Your task to perform on an android device: show emergency info Image 0: 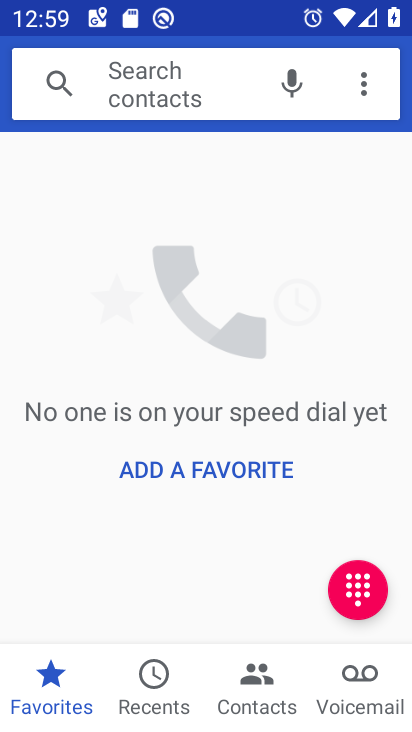
Step 0: press home button
Your task to perform on an android device: show emergency info Image 1: 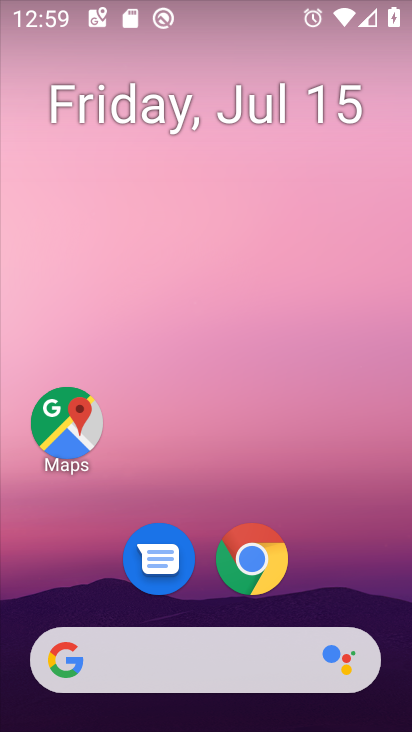
Step 1: drag from (391, 550) to (378, 146)
Your task to perform on an android device: show emergency info Image 2: 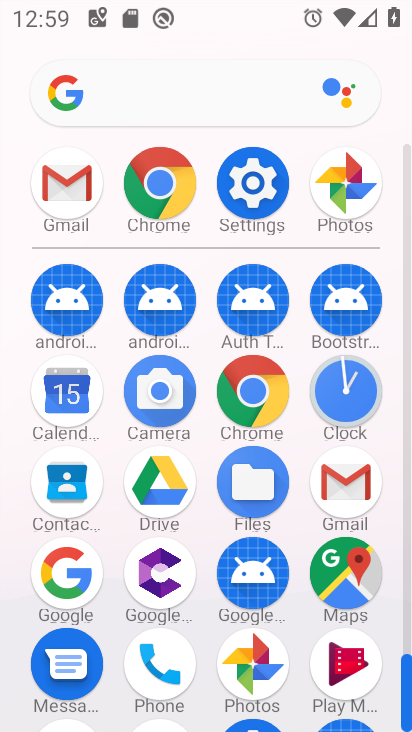
Step 2: click (263, 189)
Your task to perform on an android device: show emergency info Image 3: 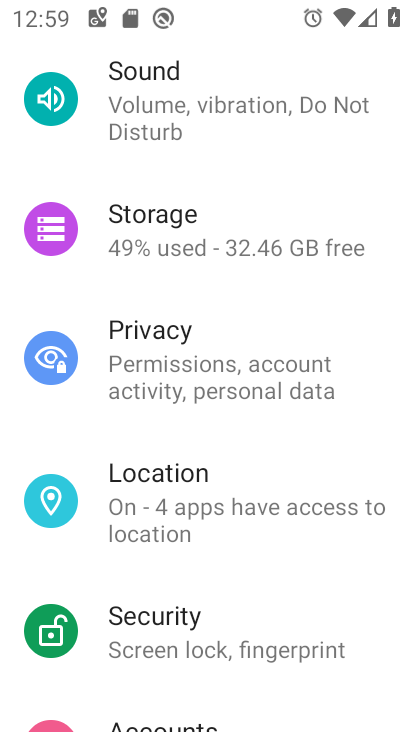
Step 3: drag from (350, 265) to (358, 354)
Your task to perform on an android device: show emergency info Image 4: 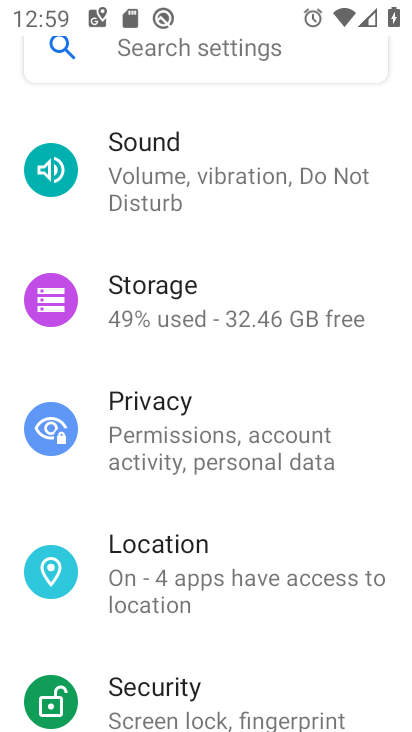
Step 4: drag from (363, 243) to (371, 346)
Your task to perform on an android device: show emergency info Image 5: 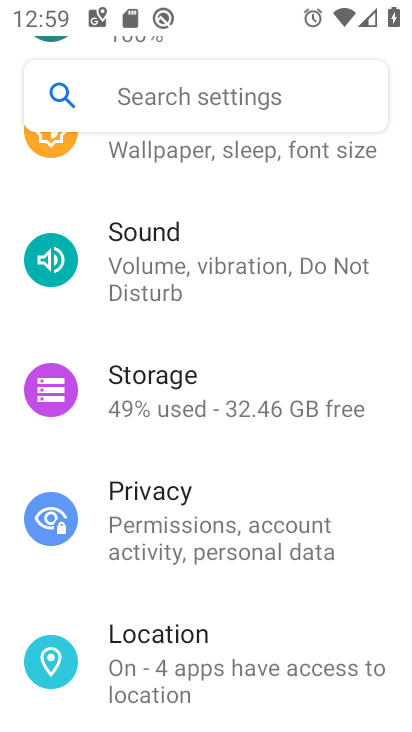
Step 5: drag from (374, 203) to (374, 306)
Your task to perform on an android device: show emergency info Image 6: 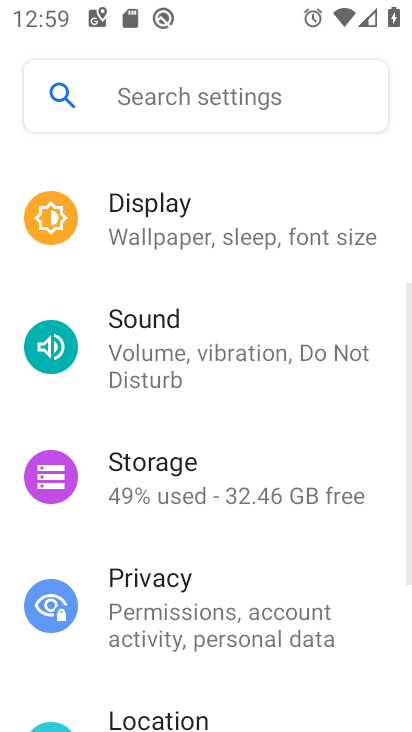
Step 6: drag from (372, 264) to (370, 351)
Your task to perform on an android device: show emergency info Image 7: 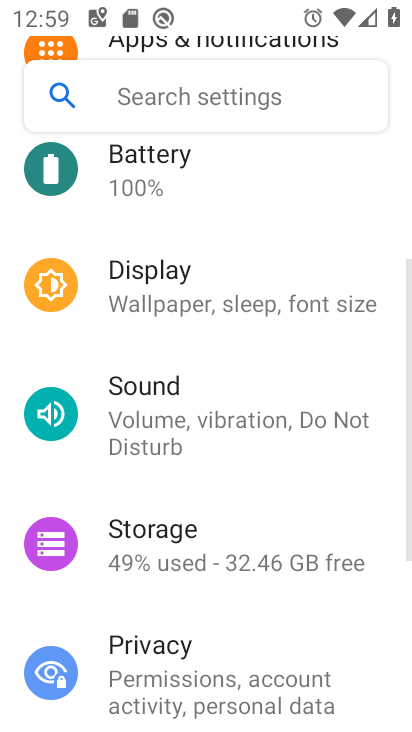
Step 7: drag from (355, 263) to (359, 356)
Your task to perform on an android device: show emergency info Image 8: 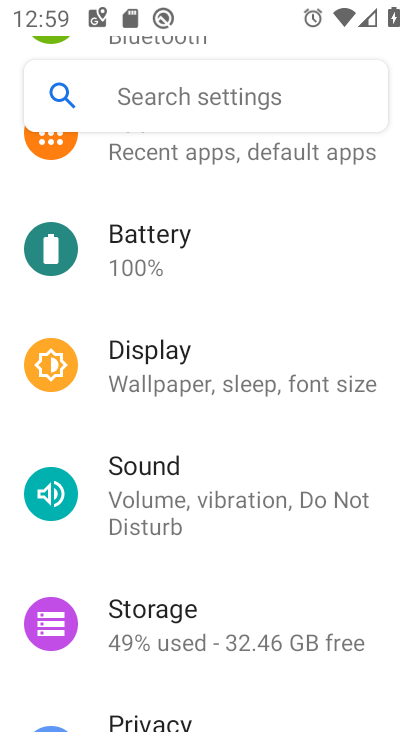
Step 8: drag from (359, 266) to (360, 375)
Your task to perform on an android device: show emergency info Image 9: 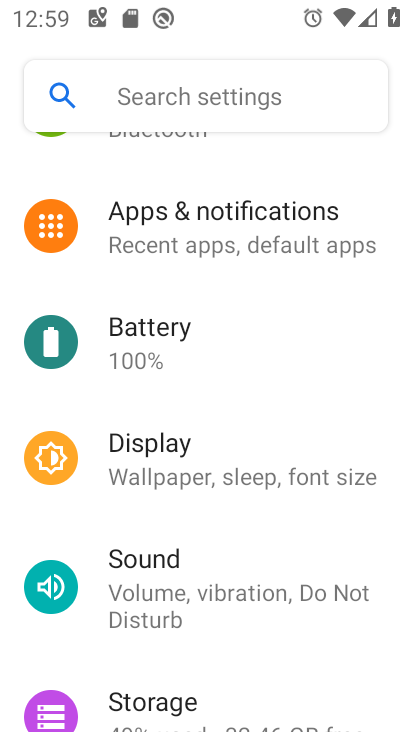
Step 9: drag from (356, 324) to (354, 419)
Your task to perform on an android device: show emergency info Image 10: 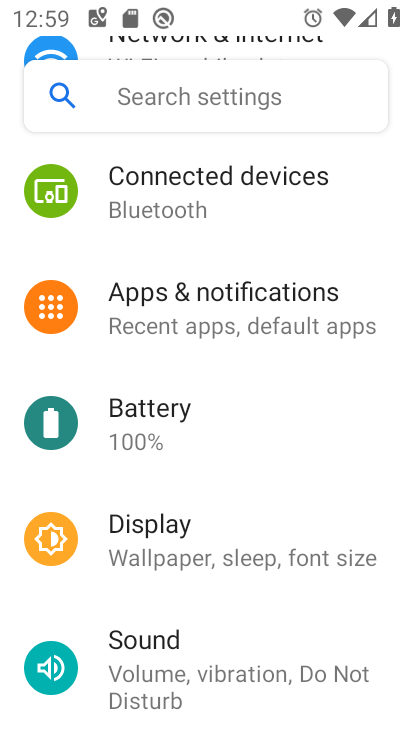
Step 10: drag from (359, 292) to (364, 399)
Your task to perform on an android device: show emergency info Image 11: 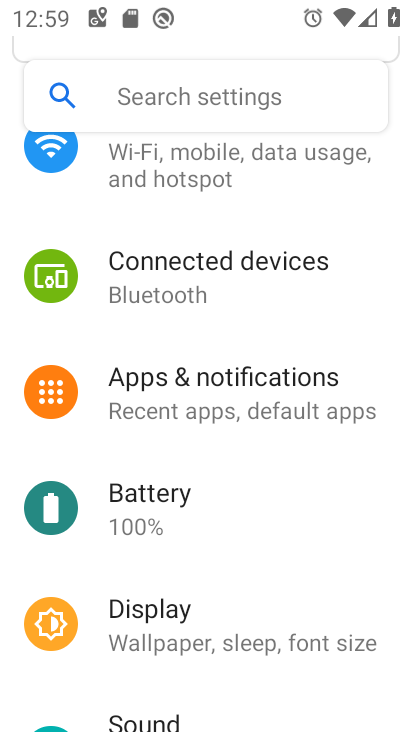
Step 11: drag from (365, 306) to (364, 429)
Your task to perform on an android device: show emergency info Image 12: 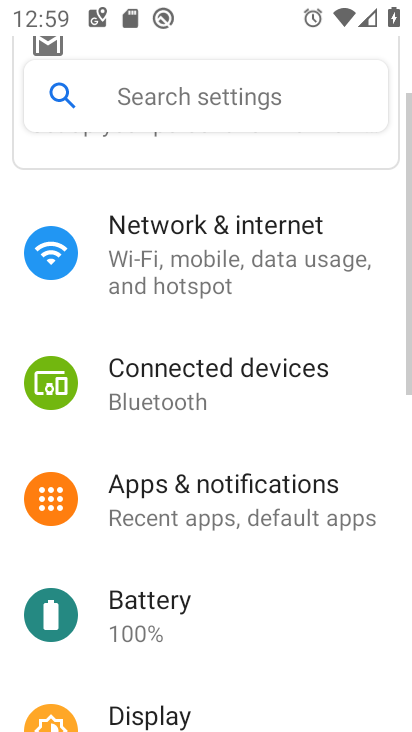
Step 12: drag from (360, 445) to (359, 321)
Your task to perform on an android device: show emergency info Image 13: 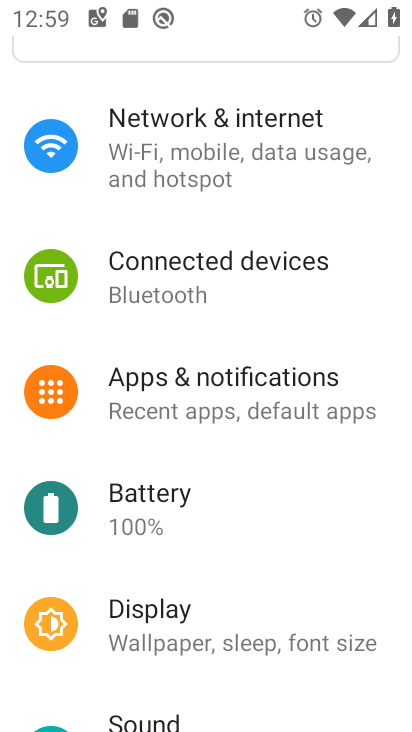
Step 13: drag from (371, 497) to (372, 388)
Your task to perform on an android device: show emergency info Image 14: 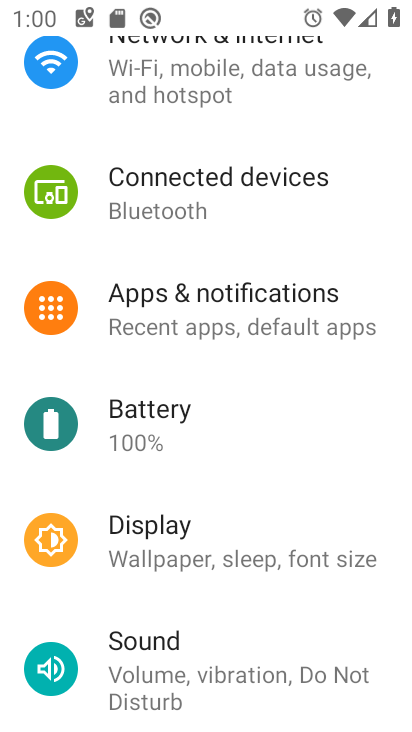
Step 14: drag from (358, 487) to (369, 386)
Your task to perform on an android device: show emergency info Image 15: 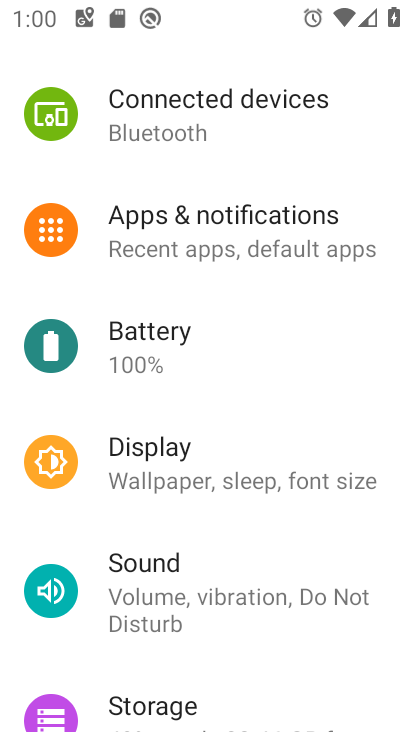
Step 15: drag from (354, 524) to (356, 355)
Your task to perform on an android device: show emergency info Image 16: 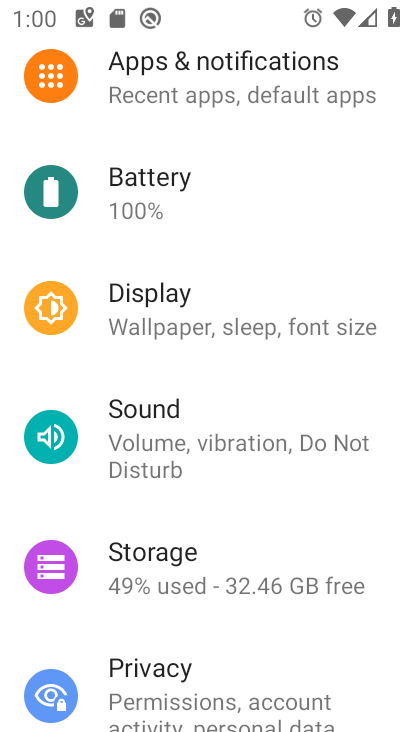
Step 16: drag from (343, 501) to (344, 409)
Your task to perform on an android device: show emergency info Image 17: 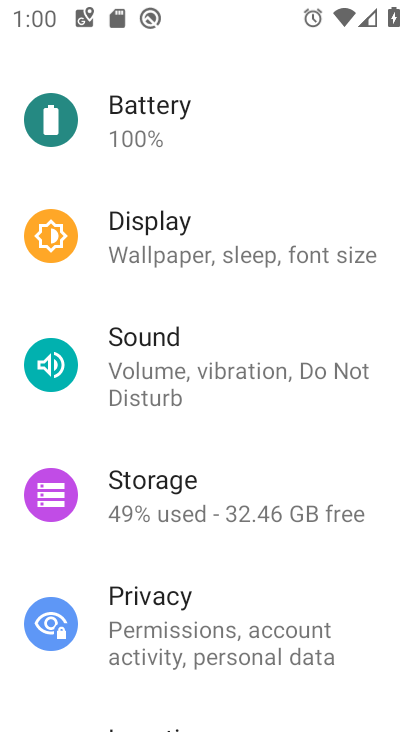
Step 17: drag from (337, 578) to (347, 392)
Your task to perform on an android device: show emergency info Image 18: 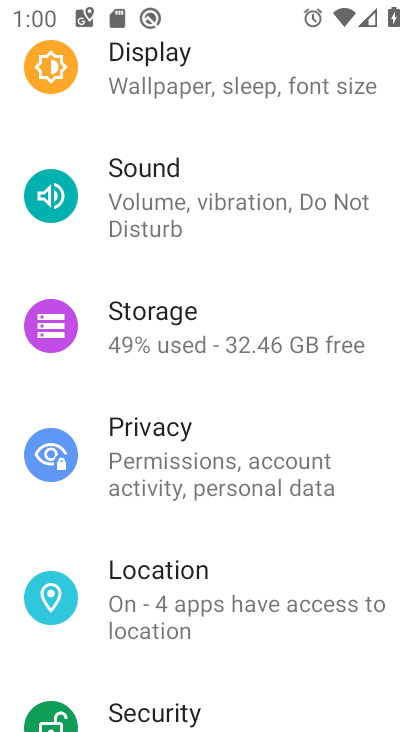
Step 18: drag from (337, 533) to (343, 427)
Your task to perform on an android device: show emergency info Image 19: 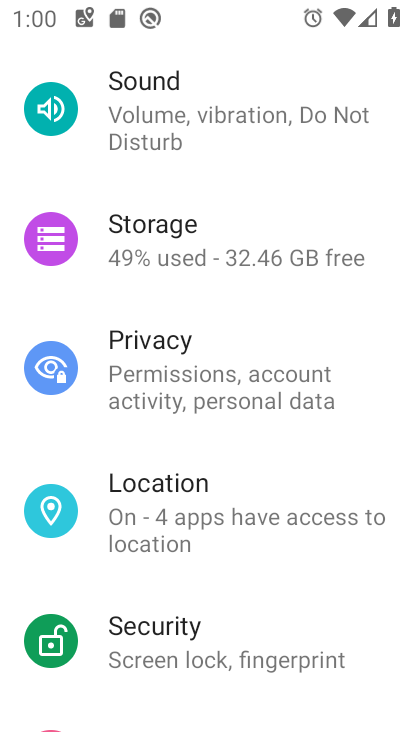
Step 19: drag from (340, 517) to (333, 422)
Your task to perform on an android device: show emergency info Image 20: 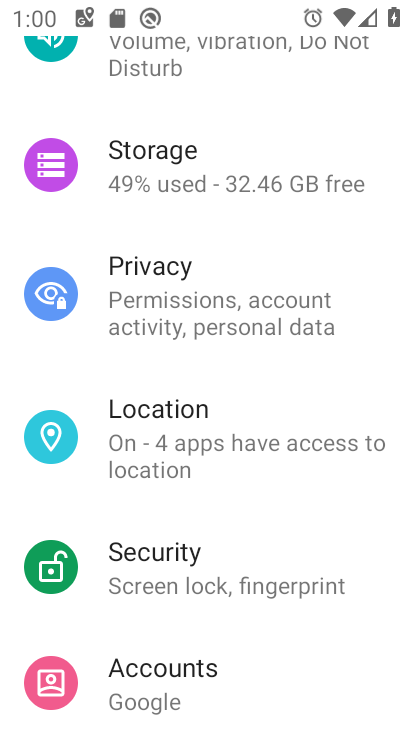
Step 20: drag from (334, 605) to (334, 452)
Your task to perform on an android device: show emergency info Image 21: 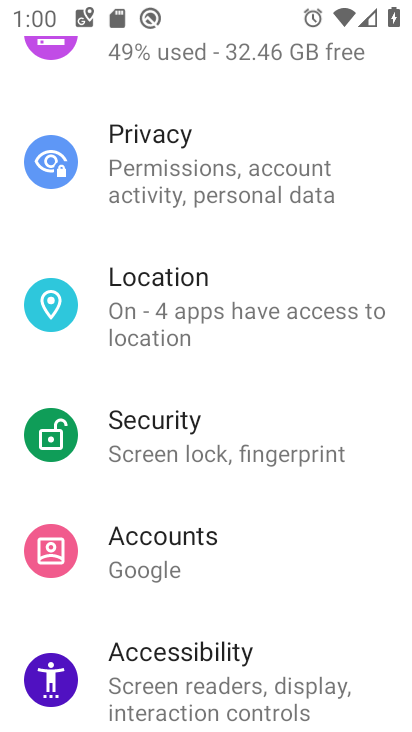
Step 21: drag from (330, 635) to (333, 528)
Your task to perform on an android device: show emergency info Image 22: 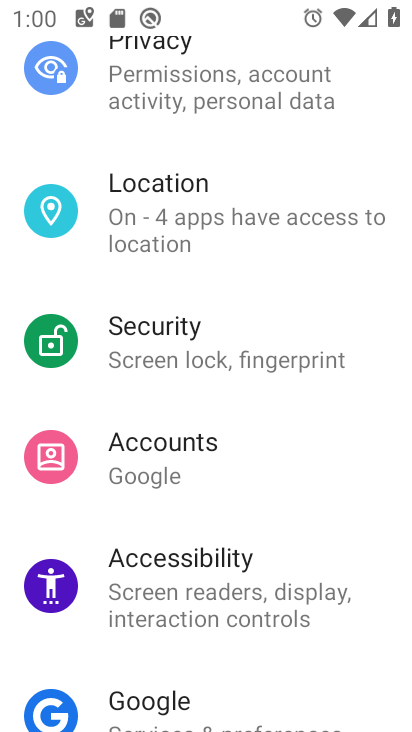
Step 22: drag from (333, 647) to (332, 489)
Your task to perform on an android device: show emergency info Image 23: 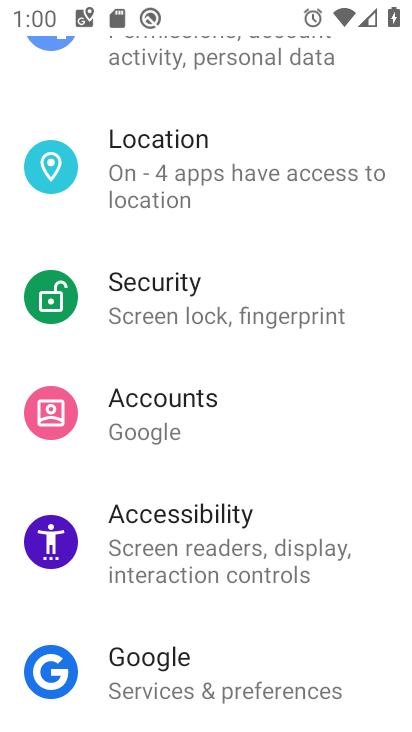
Step 23: drag from (314, 620) to (319, 442)
Your task to perform on an android device: show emergency info Image 24: 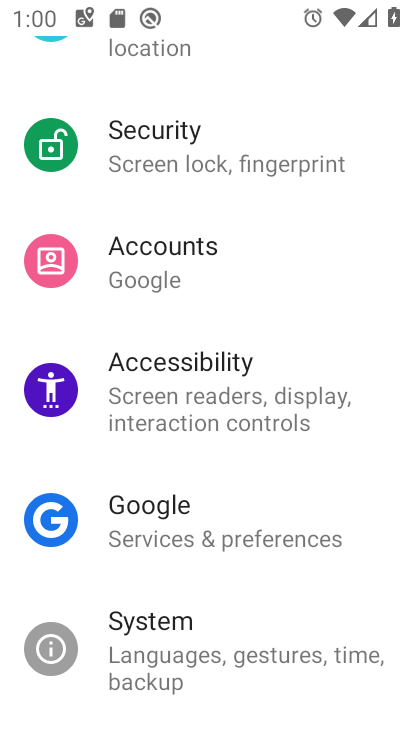
Step 24: drag from (325, 683) to (318, 505)
Your task to perform on an android device: show emergency info Image 25: 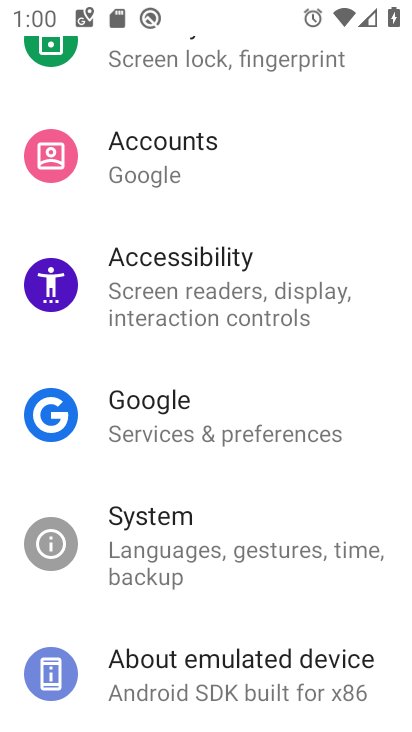
Step 25: click (331, 686)
Your task to perform on an android device: show emergency info Image 26: 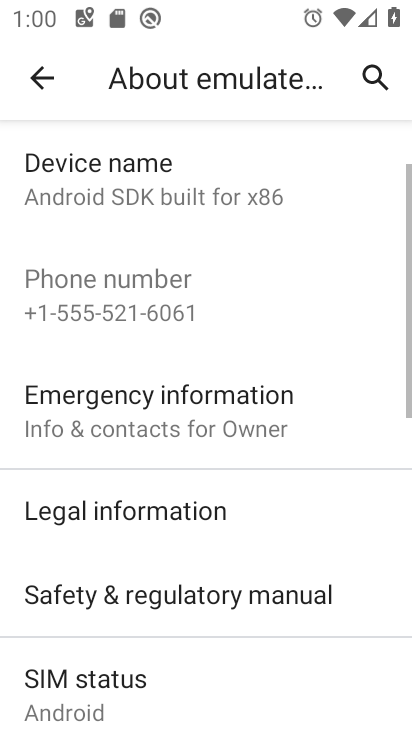
Step 26: click (283, 431)
Your task to perform on an android device: show emergency info Image 27: 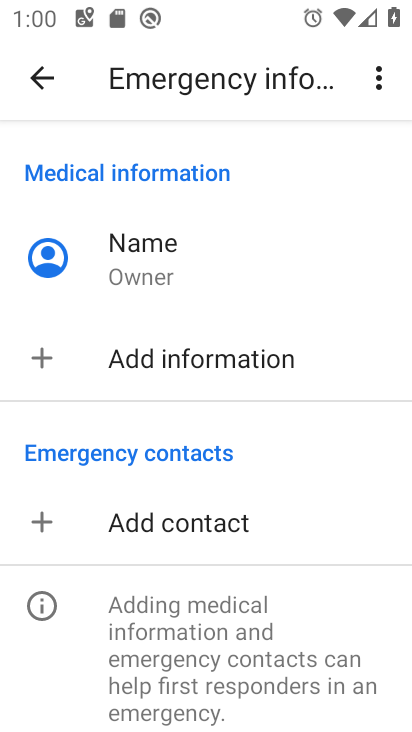
Step 27: task complete